Your task to perform on an android device: See recent photos Image 0: 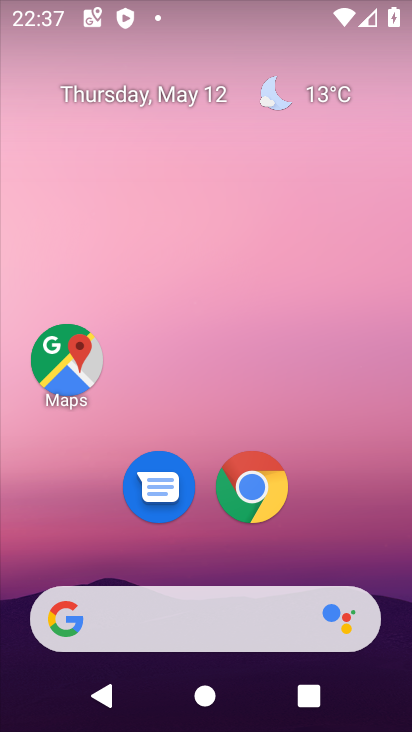
Step 0: drag from (158, 560) to (222, 7)
Your task to perform on an android device: See recent photos Image 1: 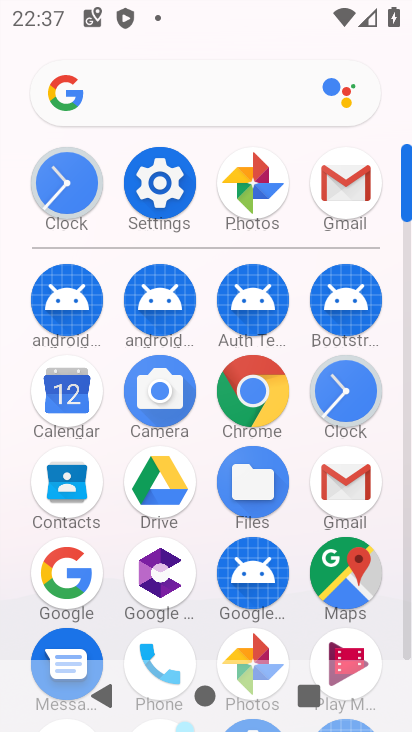
Step 1: click (234, 158)
Your task to perform on an android device: See recent photos Image 2: 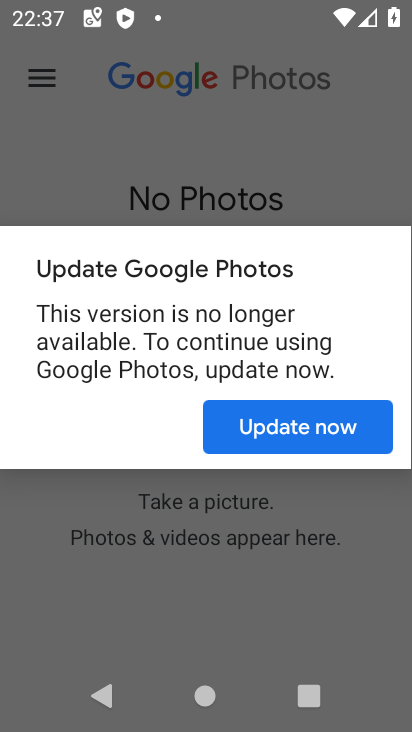
Step 2: press home button
Your task to perform on an android device: See recent photos Image 3: 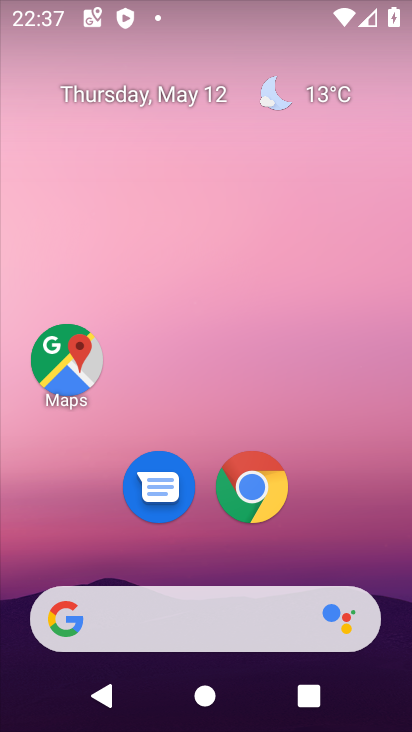
Step 3: drag from (224, 553) to (210, 209)
Your task to perform on an android device: See recent photos Image 4: 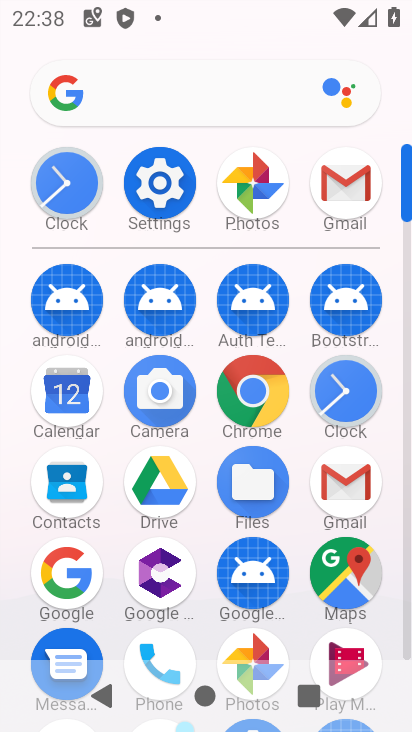
Step 4: click (265, 199)
Your task to perform on an android device: See recent photos Image 5: 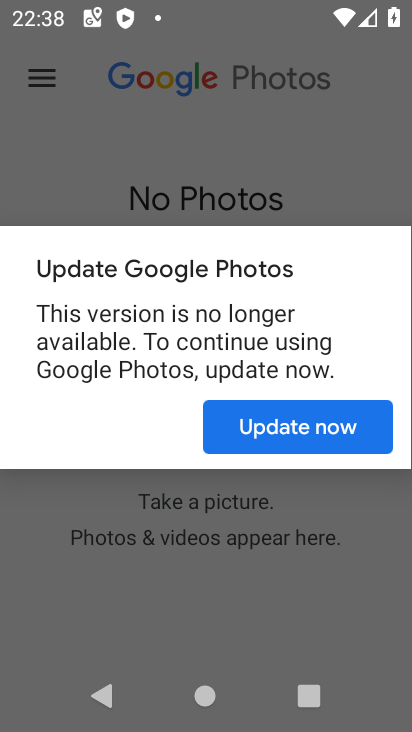
Step 5: click (323, 437)
Your task to perform on an android device: See recent photos Image 6: 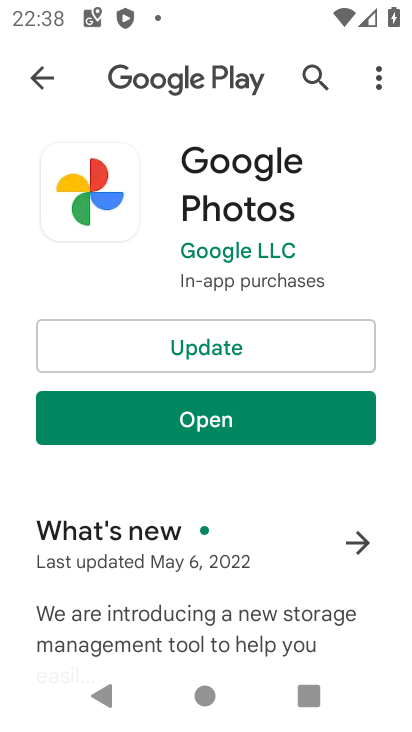
Step 6: click (323, 437)
Your task to perform on an android device: See recent photos Image 7: 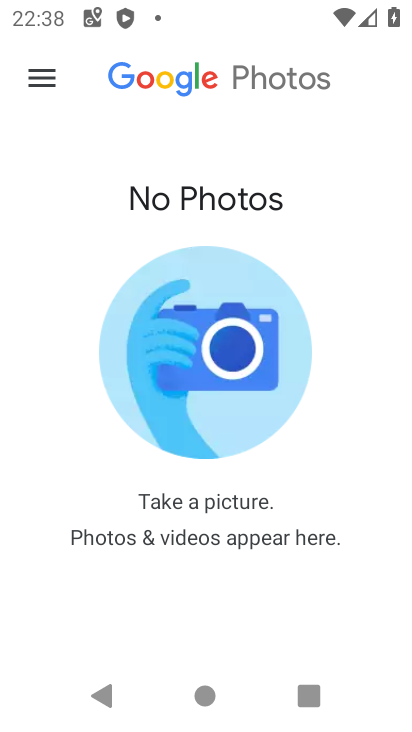
Step 7: click (22, 91)
Your task to perform on an android device: See recent photos Image 8: 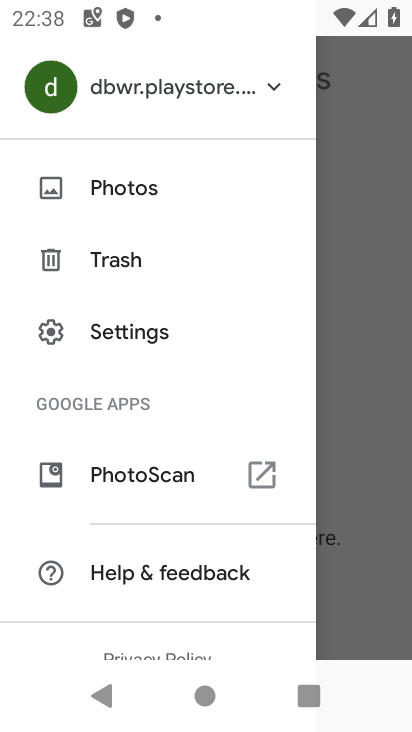
Step 8: click (103, 92)
Your task to perform on an android device: See recent photos Image 9: 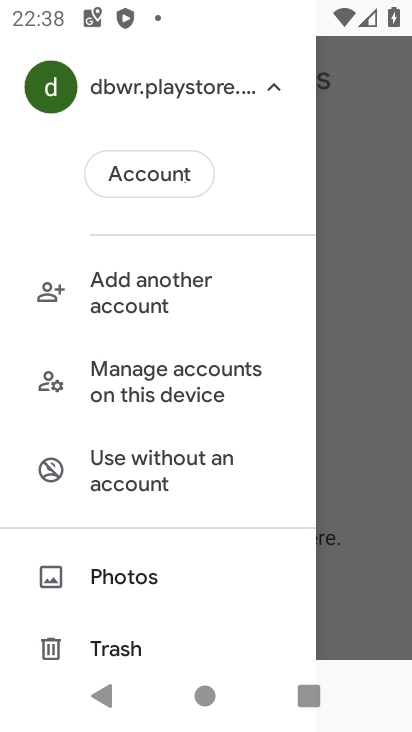
Step 9: click (162, 167)
Your task to perform on an android device: See recent photos Image 10: 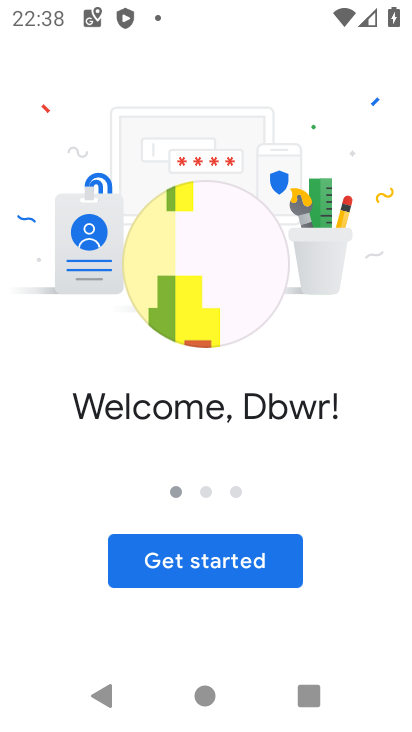
Step 10: task complete